Your task to perform on an android device: Search for vegetarian restaurants on Maps Image 0: 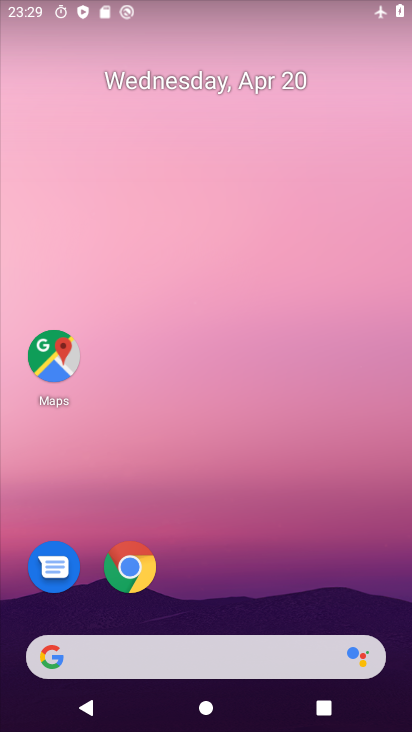
Step 0: drag from (329, 287) to (338, 124)
Your task to perform on an android device: Search for vegetarian restaurants on Maps Image 1: 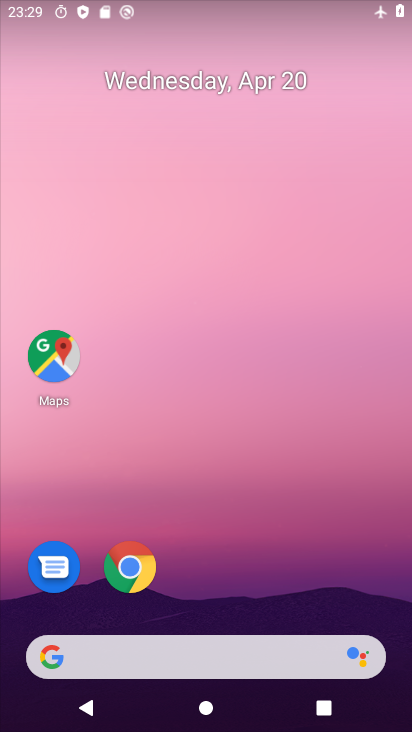
Step 1: drag from (228, 590) to (273, 154)
Your task to perform on an android device: Search for vegetarian restaurants on Maps Image 2: 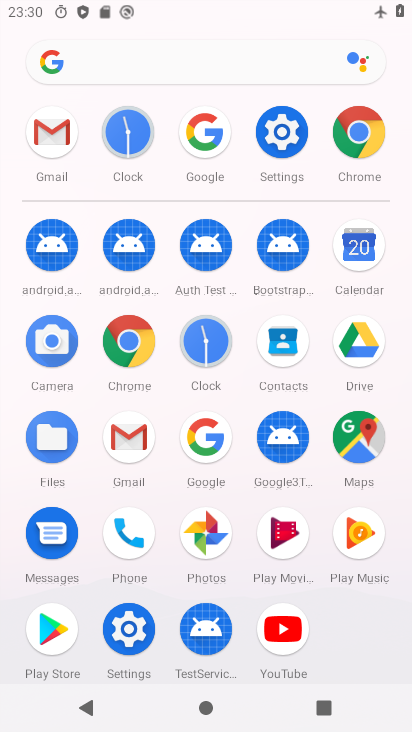
Step 2: drag from (23, 307) to (358, 434)
Your task to perform on an android device: Search for vegetarian restaurants on Maps Image 3: 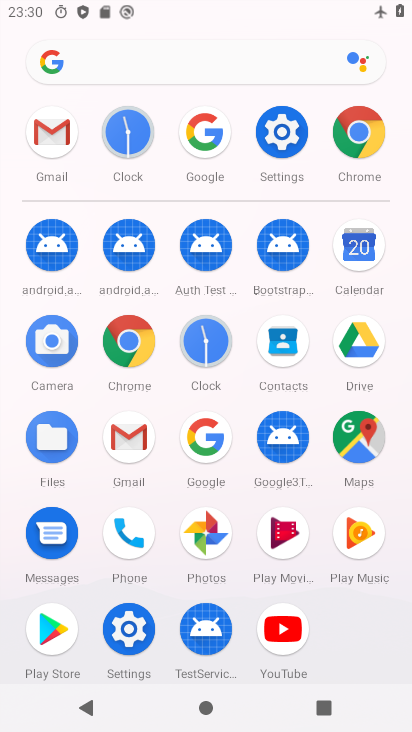
Step 3: click (348, 434)
Your task to perform on an android device: Search for vegetarian restaurants on Maps Image 4: 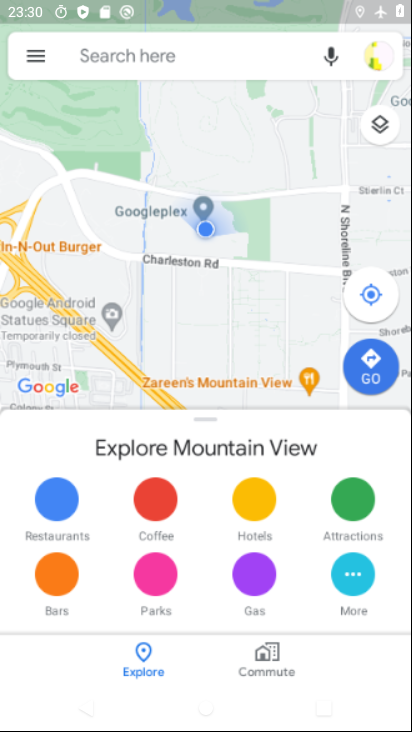
Step 4: click (185, 41)
Your task to perform on an android device: Search for vegetarian restaurants on Maps Image 5: 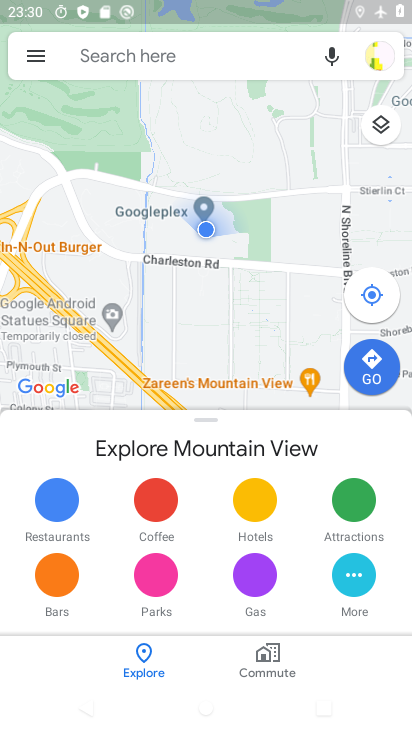
Step 5: click (210, 51)
Your task to perform on an android device: Search for vegetarian restaurants on Maps Image 6: 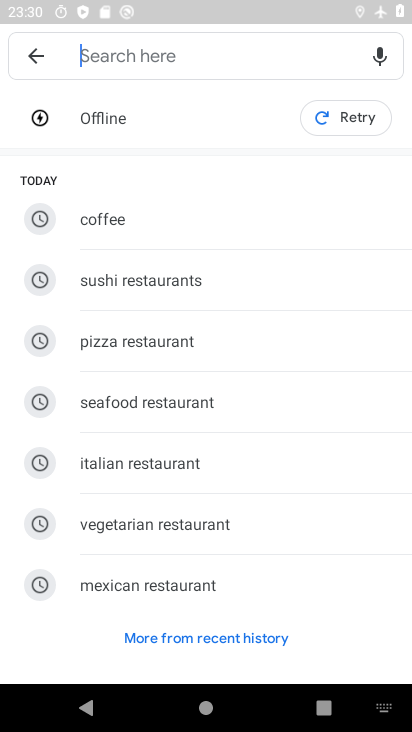
Step 6: click (199, 523)
Your task to perform on an android device: Search for vegetarian restaurants on Maps Image 7: 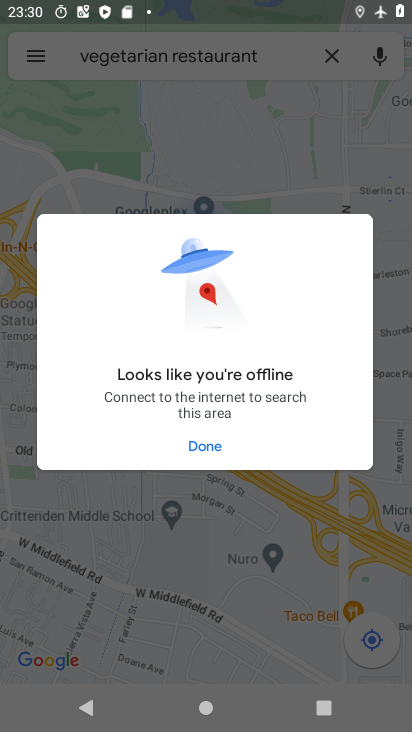
Step 7: click (199, 434)
Your task to perform on an android device: Search for vegetarian restaurants on Maps Image 8: 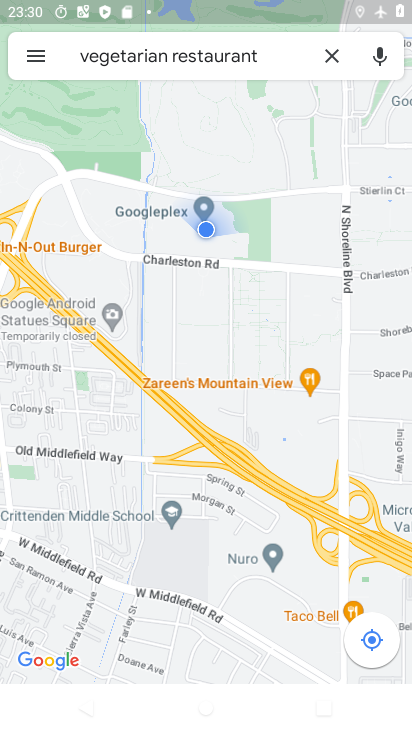
Step 8: task complete